Your task to perform on an android device: turn on wifi Image 0: 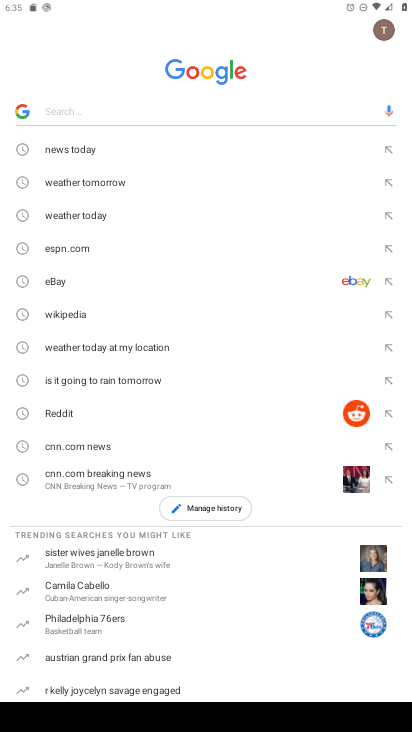
Step 0: press home button
Your task to perform on an android device: turn on wifi Image 1: 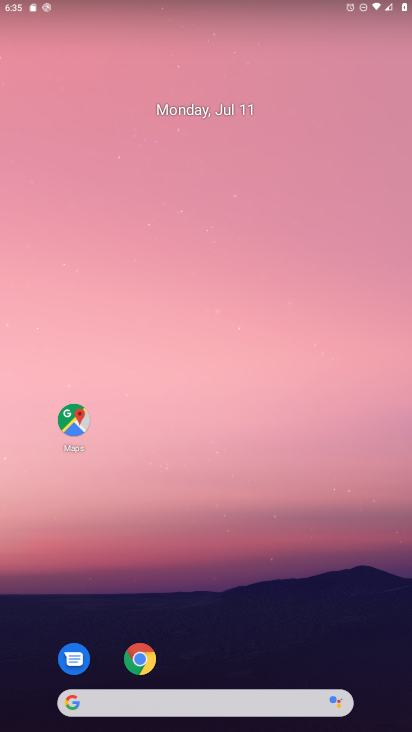
Step 1: drag from (390, 669) to (335, 104)
Your task to perform on an android device: turn on wifi Image 2: 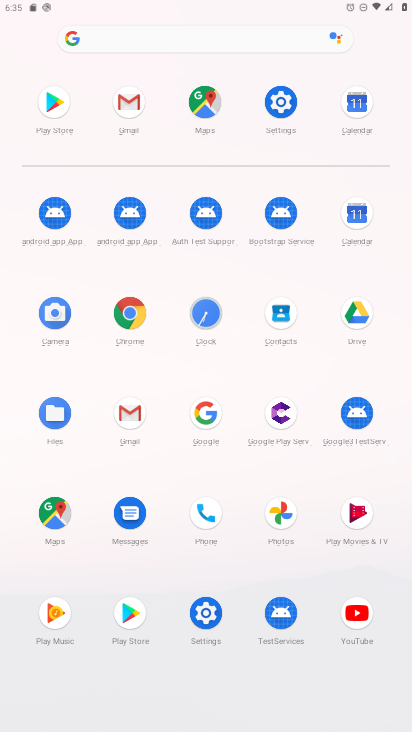
Step 2: click (205, 612)
Your task to perform on an android device: turn on wifi Image 3: 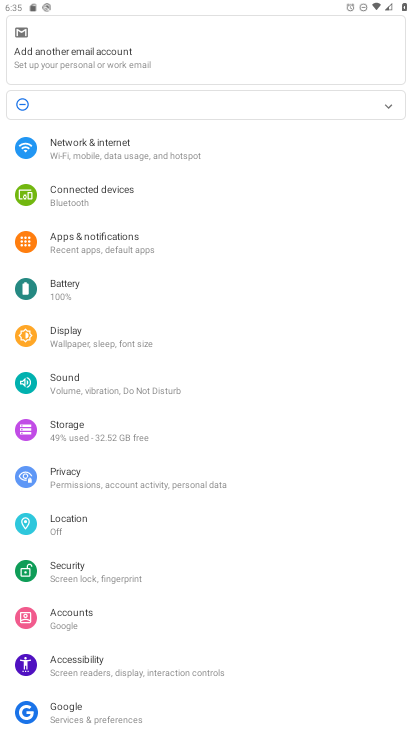
Step 3: click (95, 146)
Your task to perform on an android device: turn on wifi Image 4: 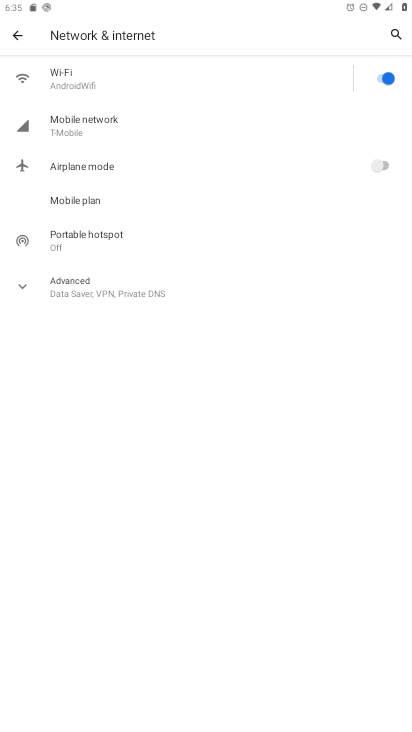
Step 4: task complete